Your task to perform on an android device: Show me recent news Image 0: 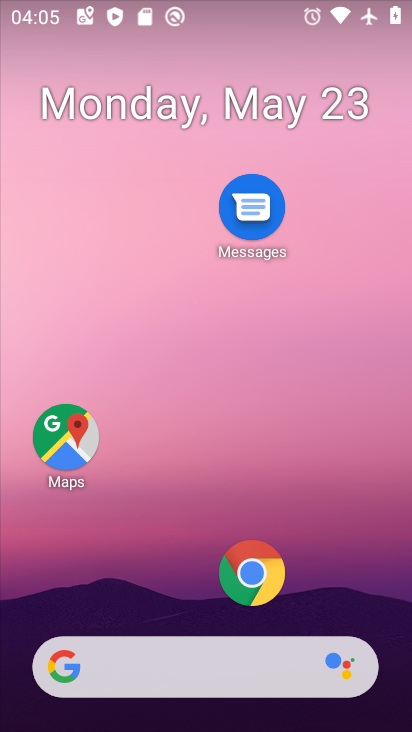
Step 0: drag from (194, 684) to (291, 4)
Your task to perform on an android device: Show me recent news Image 1: 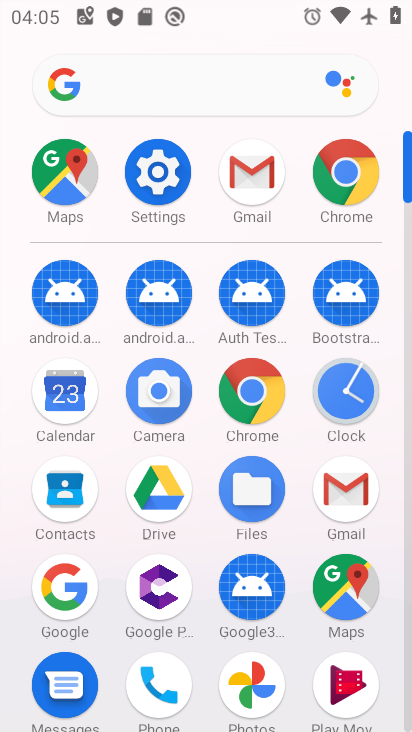
Step 1: click (261, 379)
Your task to perform on an android device: Show me recent news Image 2: 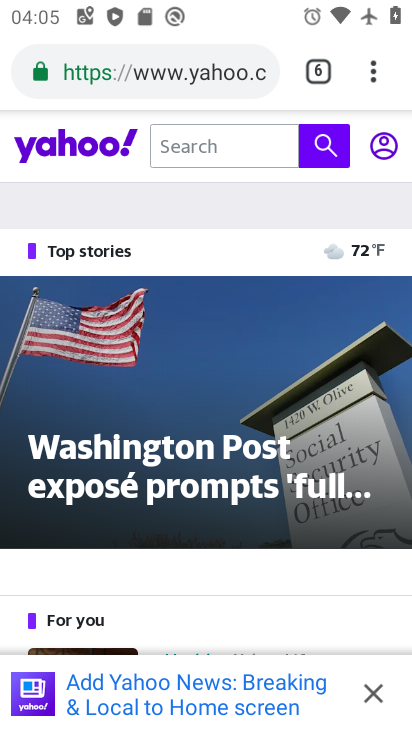
Step 2: click (180, 79)
Your task to perform on an android device: Show me recent news Image 3: 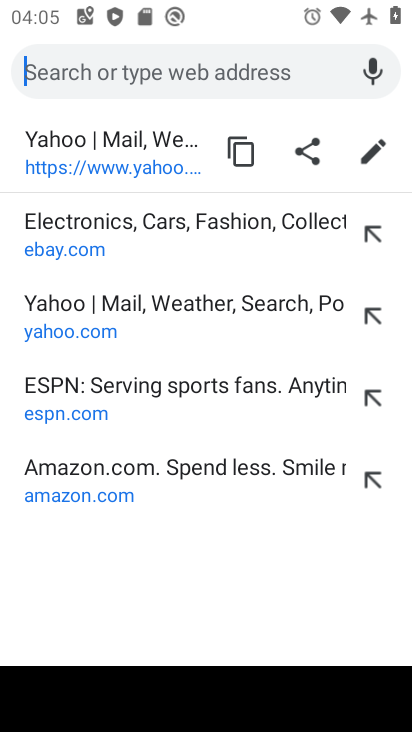
Step 3: type "recent news"
Your task to perform on an android device: Show me recent news Image 4: 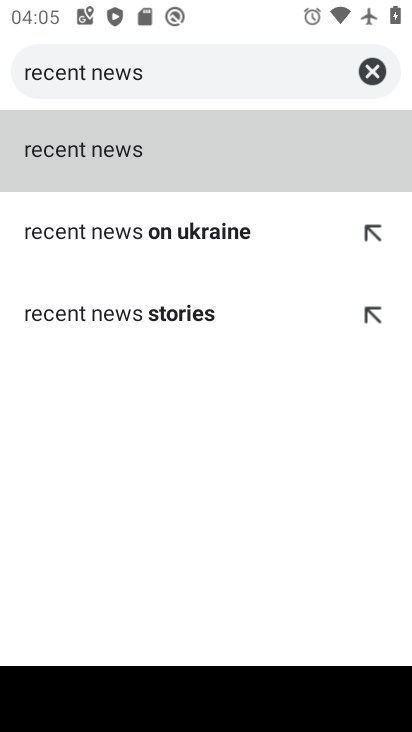
Step 4: click (184, 165)
Your task to perform on an android device: Show me recent news Image 5: 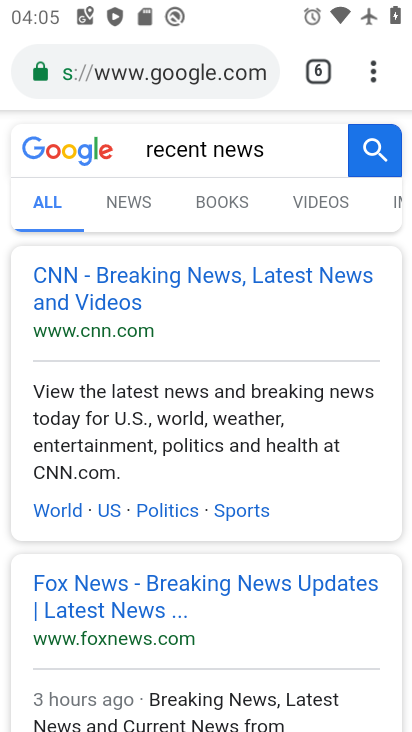
Step 5: task complete